Your task to perform on an android device: turn off wifi Image 0: 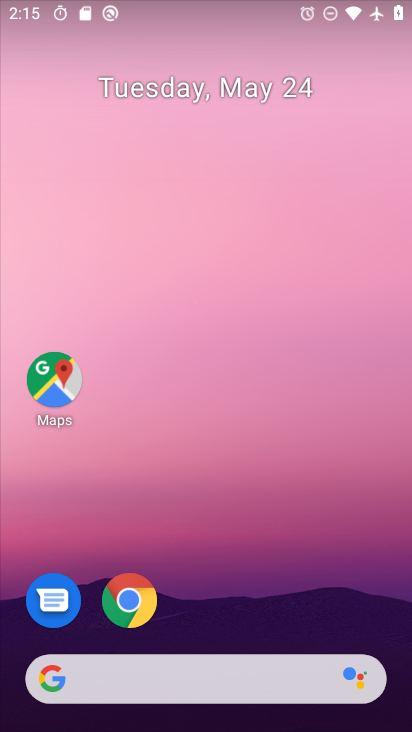
Step 0: drag from (280, 581) to (228, 109)
Your task to perform on an android device: turn off wifi Image 1: 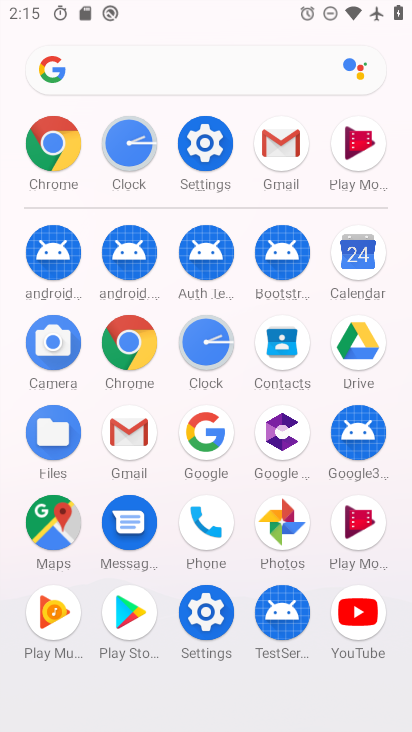
Step 1: click (205, 136)
Your task to perform on an android device: turn off wifi Image 2: 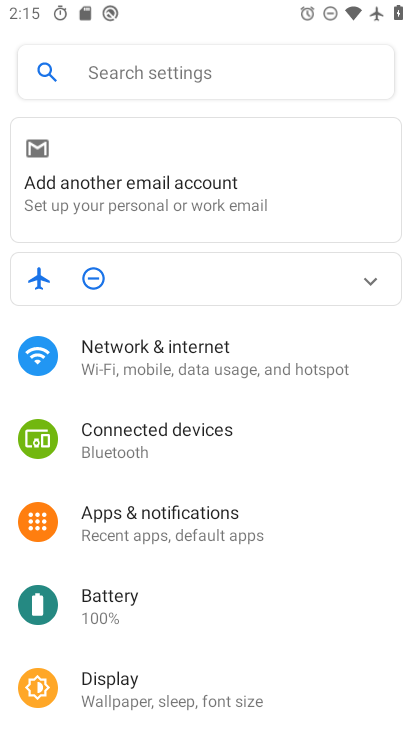
Step 2: click (186, 371)
Your task to perform on an android device: turn off wifi Image 3: 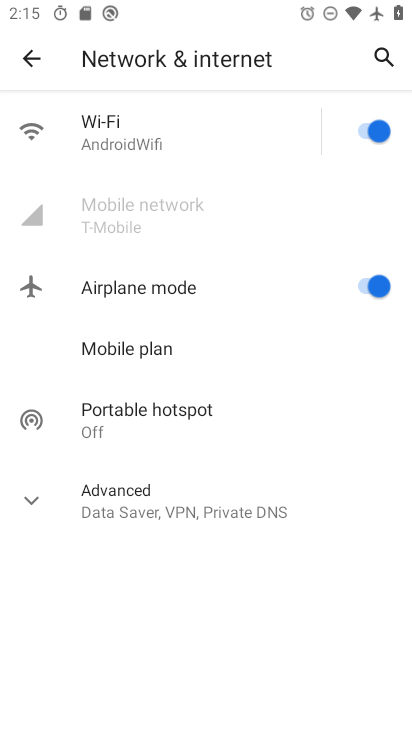
Step 3: click (347, 128)
Your task to perform on an android device: turn off wifi Image 4: 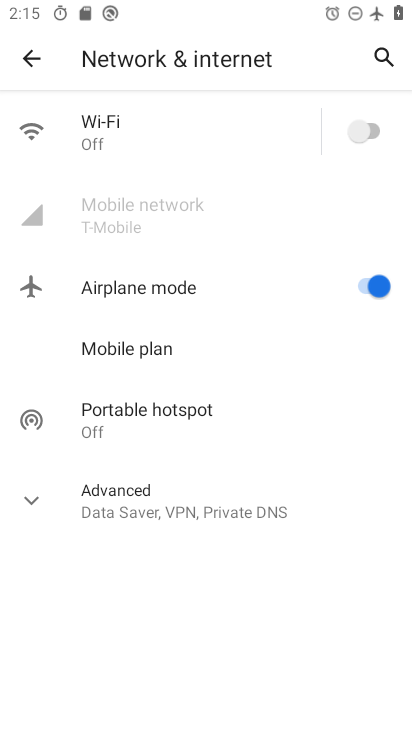
Step 4: task complete